Your task to perform on an android device: Open Wikipedia Image 0: 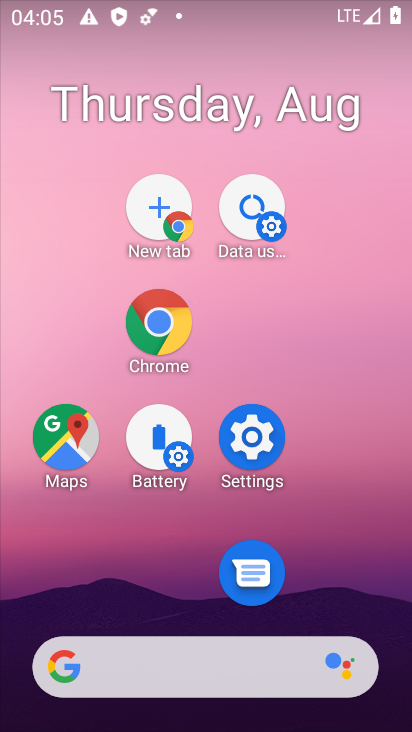
Step 0: drag from (179, 714) to (121, 221)
Your task to perform on an android device: Open Wikipedia Image 1: 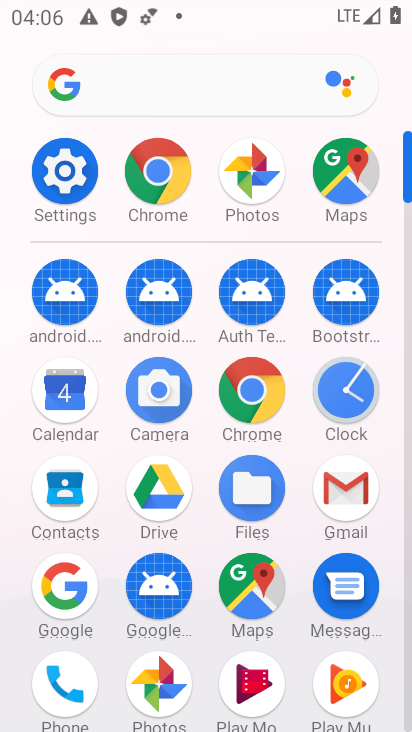
Step 1: click (156, 171)
Your task to perform on an android device: Open Wikipedia Image 2: 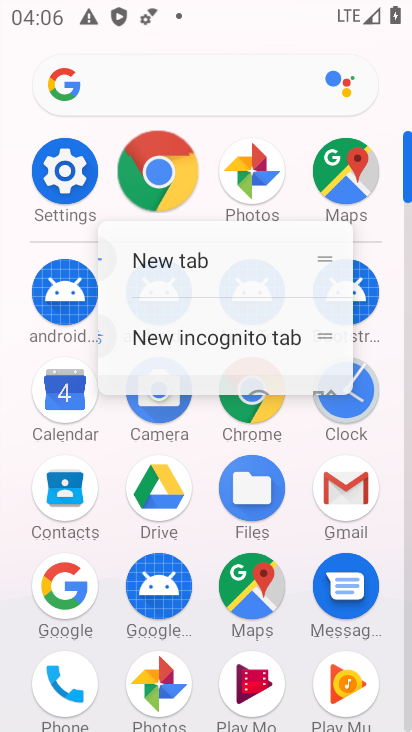
Step 2: click (156, 172)
Your task to perform on an android device: Open Wikipedia Image 3: 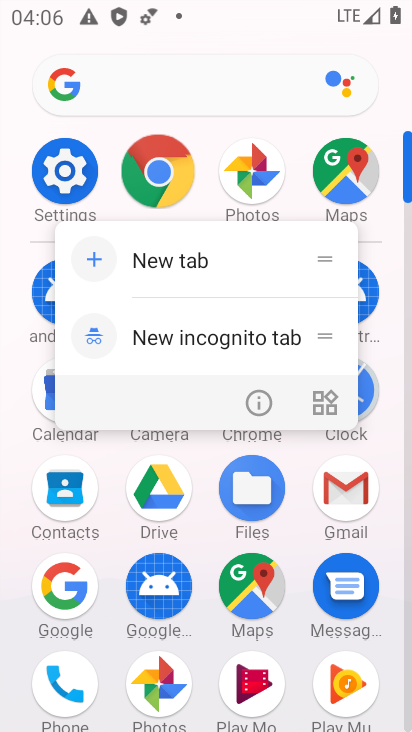
Step 3: click (157, 173)
Your task to perform on an android device: Open Wikipedia Image 4: 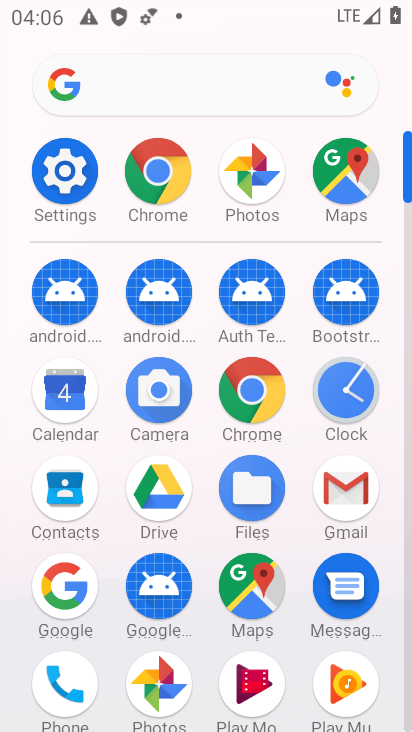
Step 4: click (161, 178)
Your task to perform on an android device: Open Wikipedia Image 5: 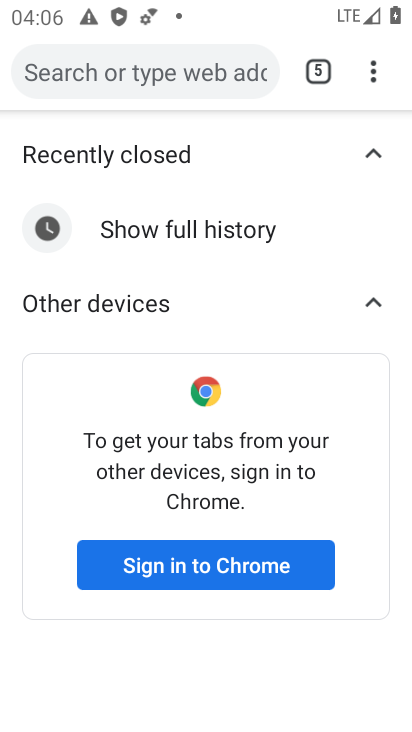
Step 5: drag from (368, 69) to (96, 134)
Your task to perform on an android device: Open Wikipedia Image 6: 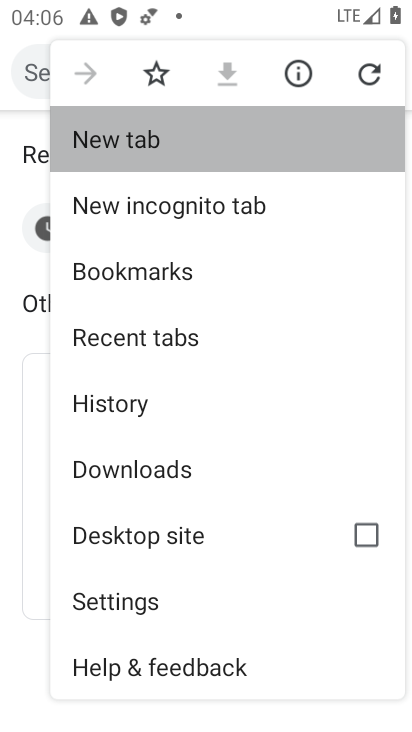
Step 6: click (99, 130)
Your task to perform on an android device: Open Wikipedia Image 7: 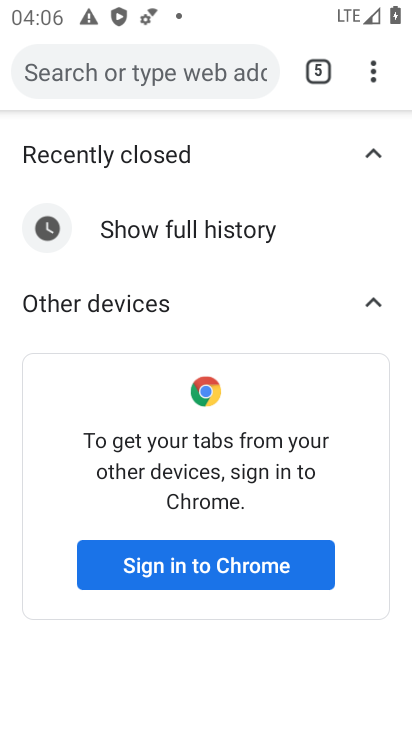
Step 7: click (99, 130)
Your task to perform on an android device: Open Wikipedia Image 8: 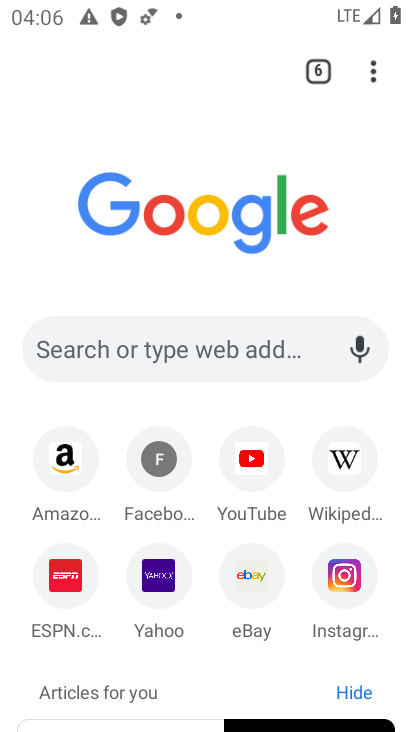
Step 8: click (338, 469)
Your task to perform on an android device: Open Wikipedia Image 9: 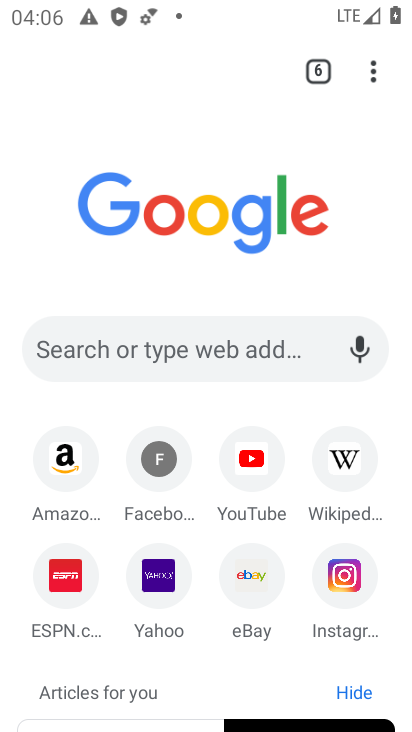
Step 9: click (338, 469)
Your task to perform on an android device: Open Wikipedia Image 10: 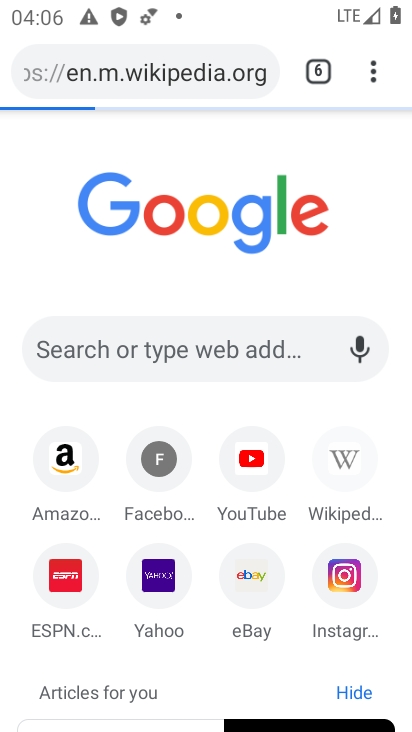
Step 10: click (341, 464)
Your task to perform on an android device: Open Wikipedia Image 11: 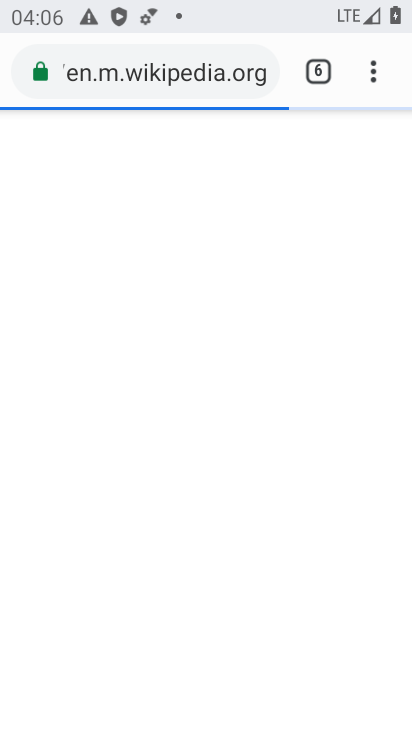
Step 11: click (342, 449)
Your task to perform on an android device: Open Wikipedia Image 12: 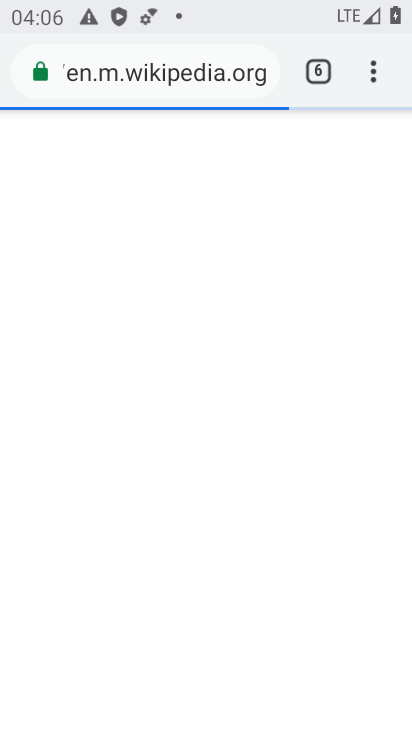
Step 12: click (336, 457)
Your task to perform on an android device: Open Wikipedia Image 13: 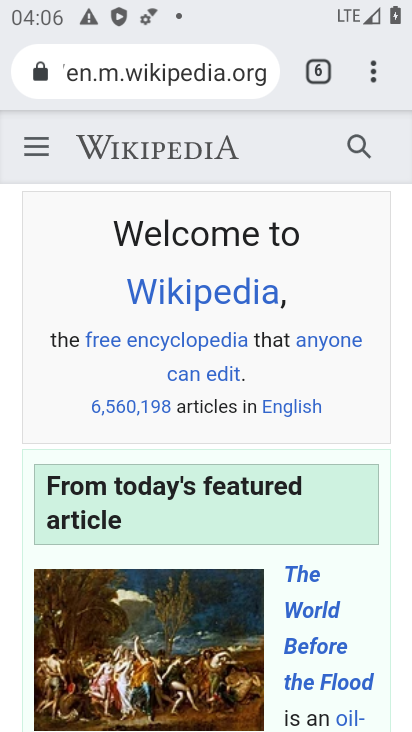
Step 13: task complete